Your task to perform on an android device: Is it going to rain tomorrow? Image 0: 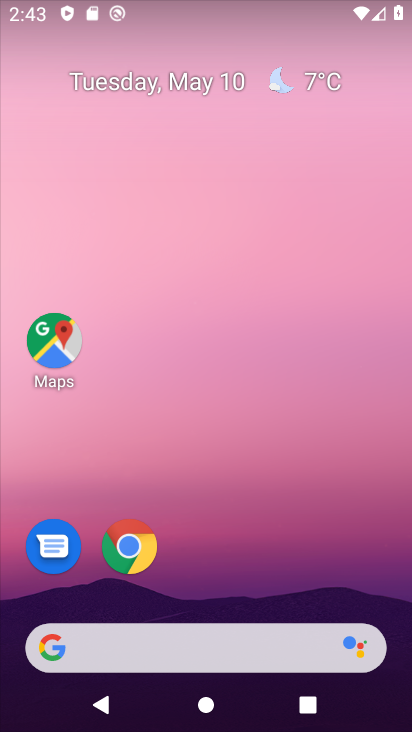
Step 0: drag from (255, 694) to (274, 6)
Your task to perform on an android device: Is it going to rain tomorrow? Image 1: 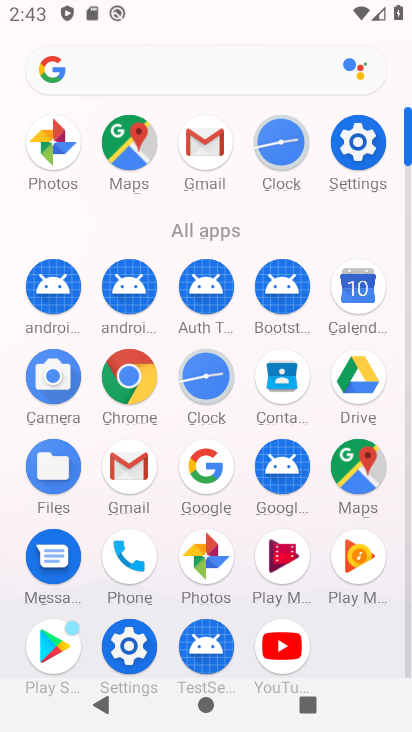
Step 1: click (132, 369)
Your task to perform on an android device: Is it going to rain tomorrow? Image 2: 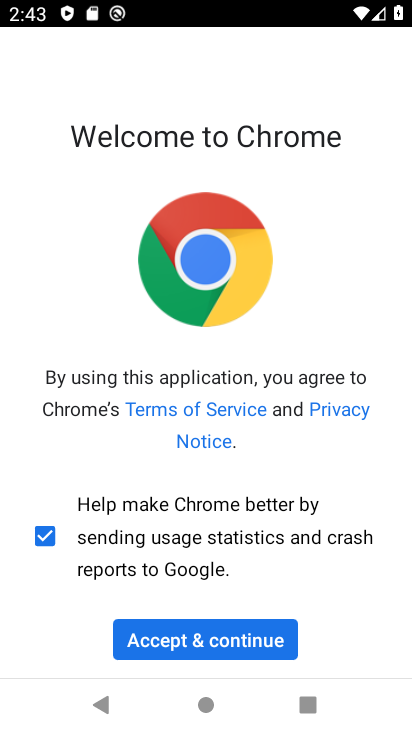
Step 2: click (160, 648)
Your task to perform on an android device: Is it going to rain tomorrow? Image 3: 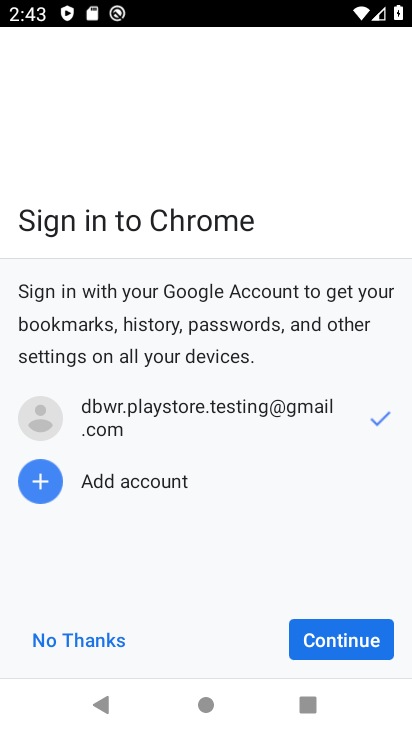
Step 3: click (77, 653)
Your task to perform on an android device: Is it going to rain tomorrow? Image 4: 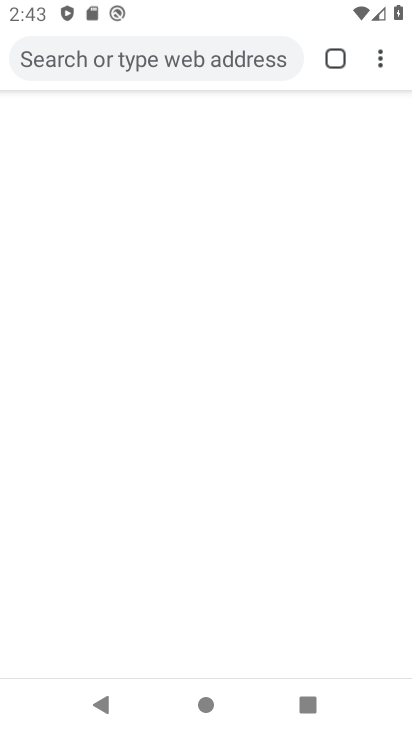
Step 4: click (238, 65)
Your task to perform on an android device: Is it going to rain tomorrow? Image 5: 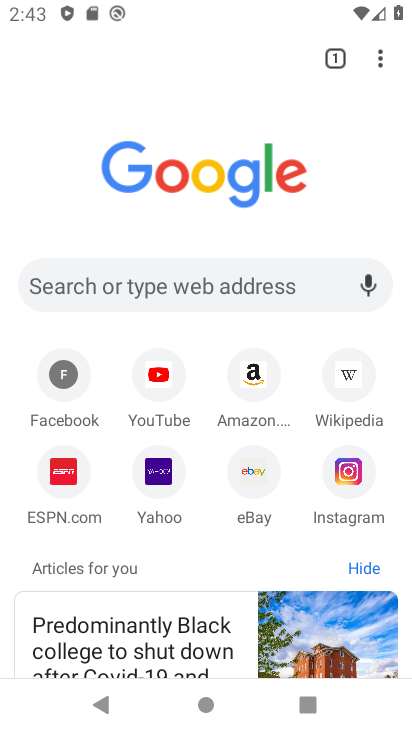
Step 5: click (241, 289)
Your task to perform on an android device: Is it going to rain tomorrow? Image 6: 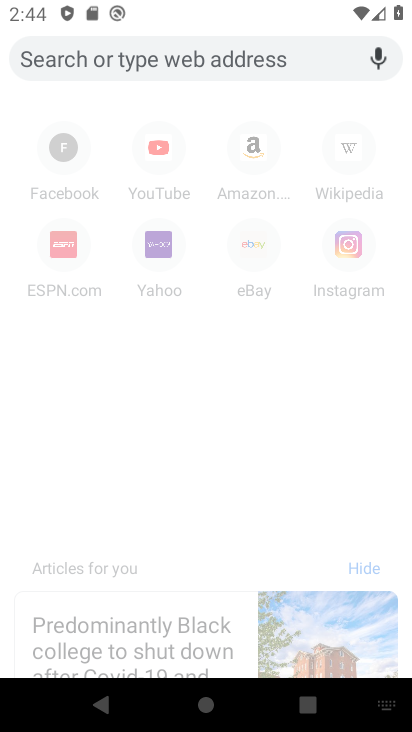
Step 6: type "going to rain tomorrow"
Your task to perform on an android device: Is it going to rain tomorrow? Image 7: 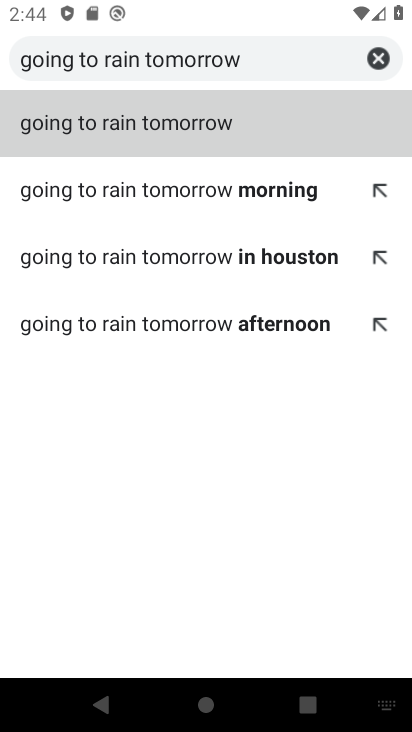
Step 7: click (214, 130)
Your task to perform on an android device: Is it going to rain tomorrow? Image 8: 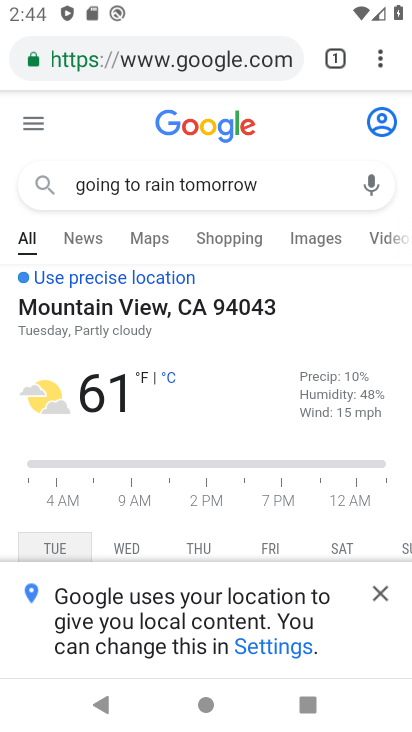
Step 8: task complete